Your task to perform on an android device: add a contact in the contacts app Image 0: 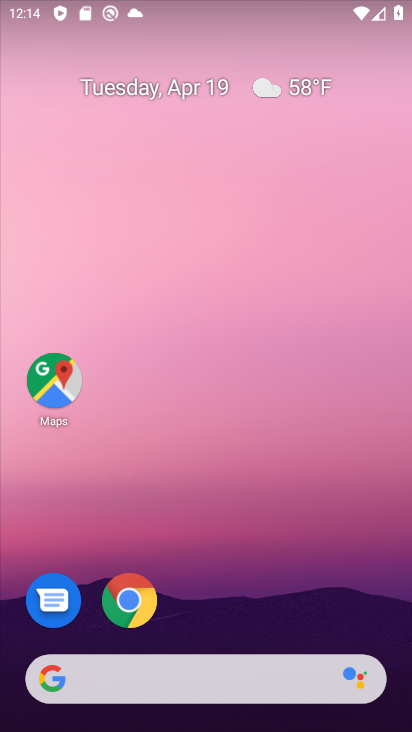
Step 0: drag from (337, 591) to (279, 222)
Your task to perform on an android device: add a contact in the contacts app Image 1: 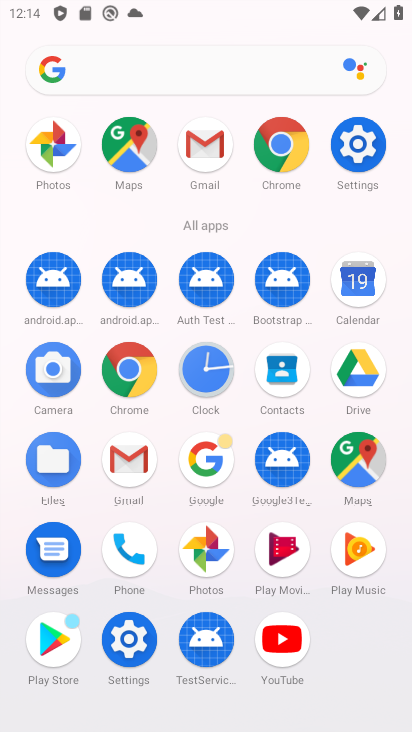
Step 1: click (293, 372)
Your task to perform on an android device: add a contact in the contacts app Image 2: 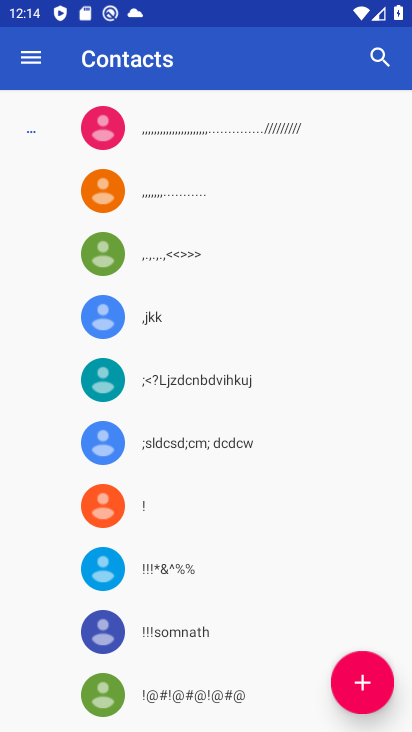
Step 2: click (366, 679)
Your task to perform on an android device: add a contact in the contacts app Image 3: 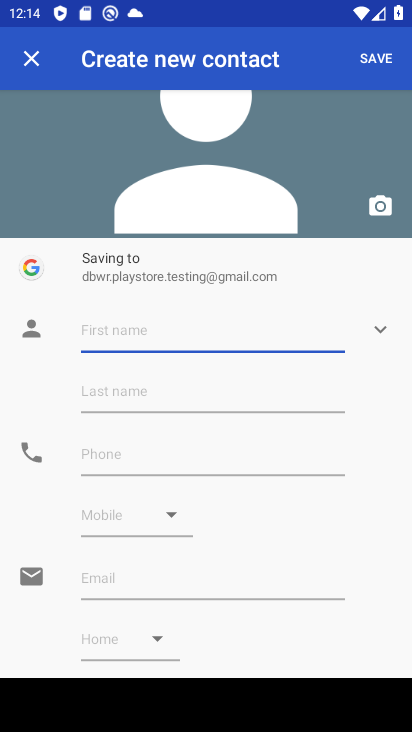
Step 3: click (206, 322)
Your task to perform on an android device: add a contact in the contacts app Image 4: 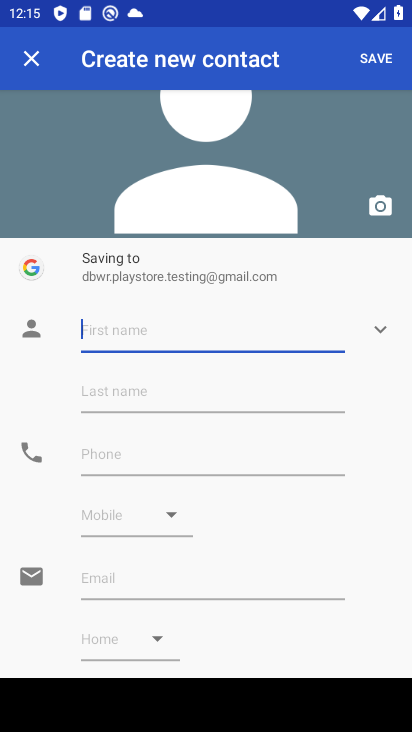
Step 4: type "hgfhgfhg"
Your task to perform on an android device: add a contact in the contacts app Image 5: 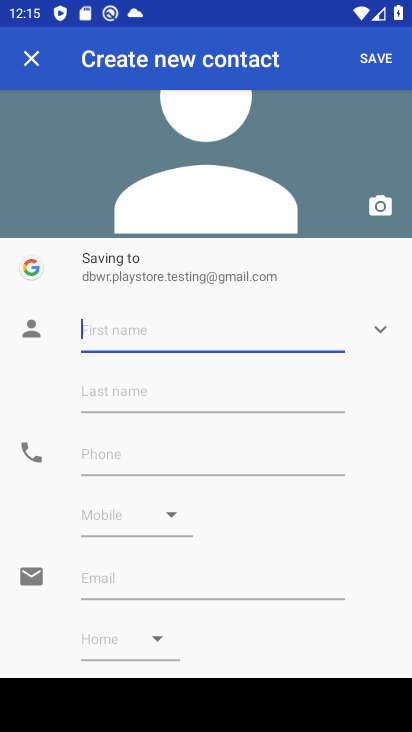
Step 5: click (251, 462)
Your task to perform on an android device: add a contact in the contacts app Image 6: 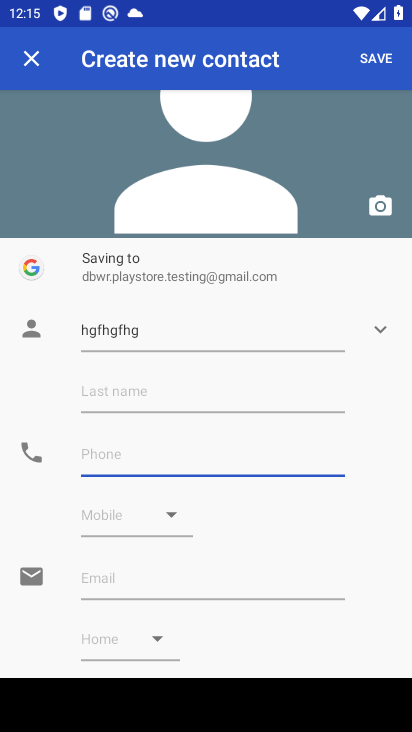
Step 6: type "5875687567"
Your task to perform on an android device: add a contact in the contacts app Image 7: 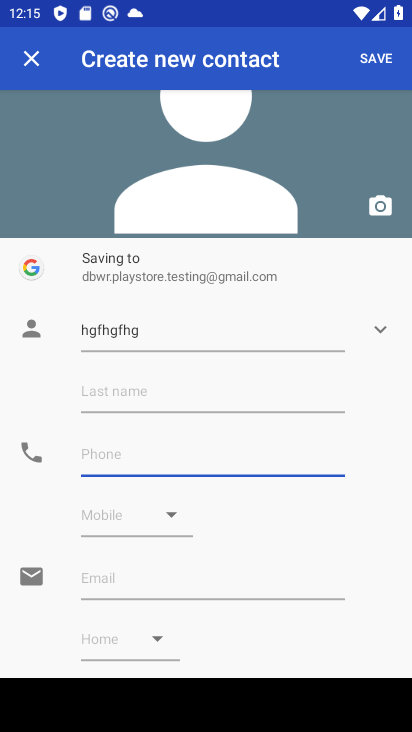
Step 7: click (382, 545)
Your task to perform on an android device: add a contact in the contacts app Image 8: 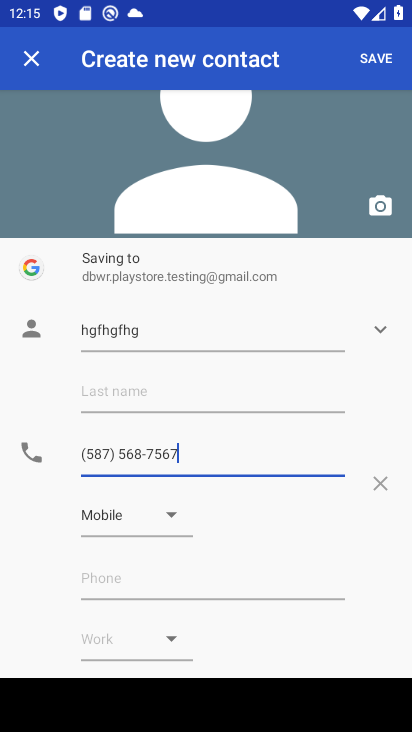
Step 8: click (374, 46)
Your task to perform on an android device: add a contact in the contacts app Image 9: 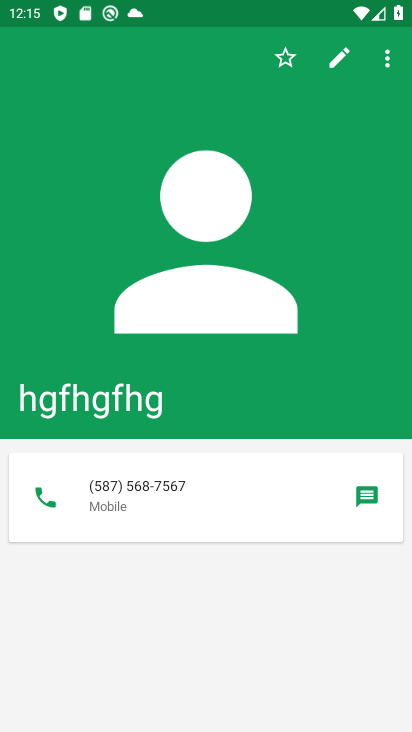
Step 9: task complete